Your task to perform on an android device: Turn off the flashlight Image 0: 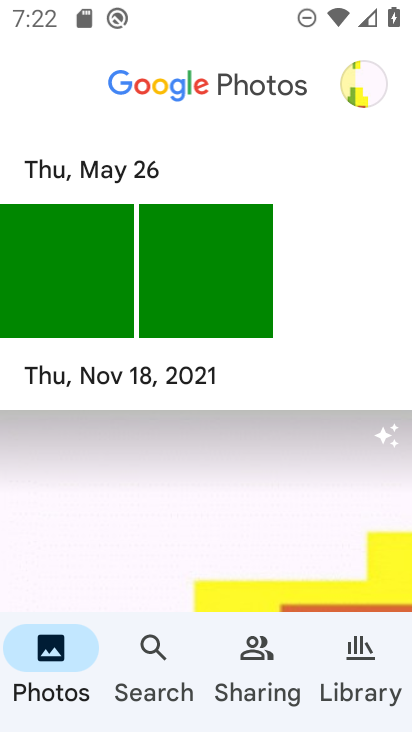
Step 0: press home button
Your task to perform on an android device: Turn off the flashlight Image 1: 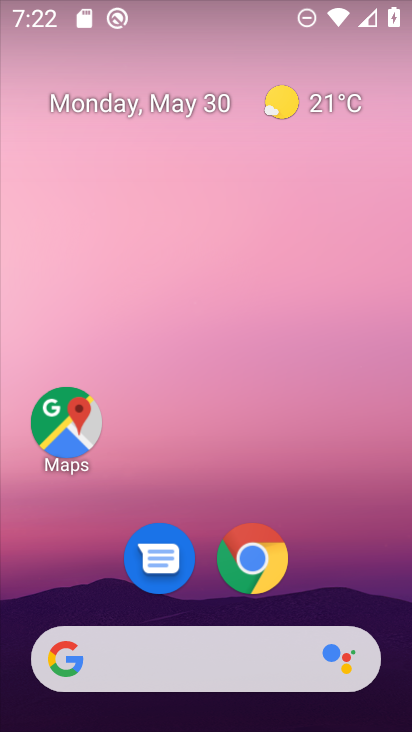
Step 1: drag from (334, 518) to (131, 133)
Your task to perform on an android device: Turn off the flashlight Image 2: 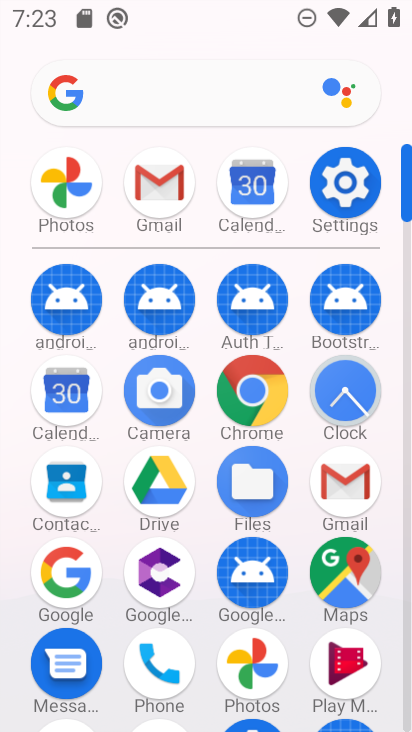
Step 2: click (349, 186)
Your task to perform on an android device: Turn off the flashlight Image 3: 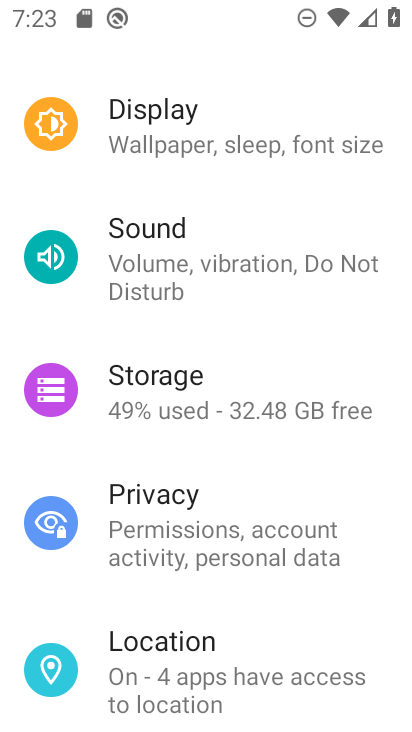
Step 3: click (160, 110)
Your task to perform on an android device: Turn off the flashlight Image 4: 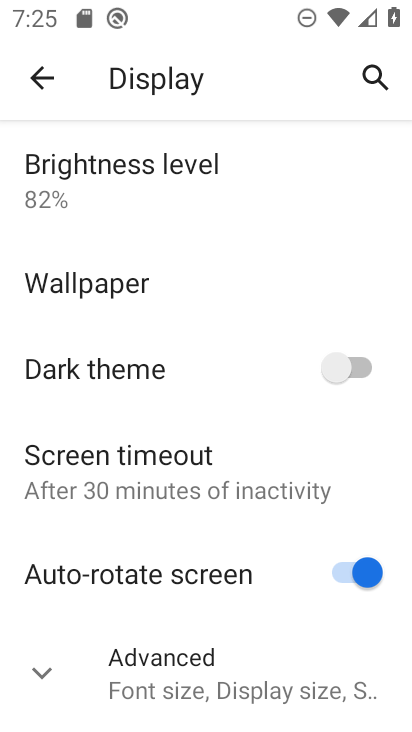
Step 4: task complete